Your task to perform on an android device: find snoozed emails in the gmail app Image 0: 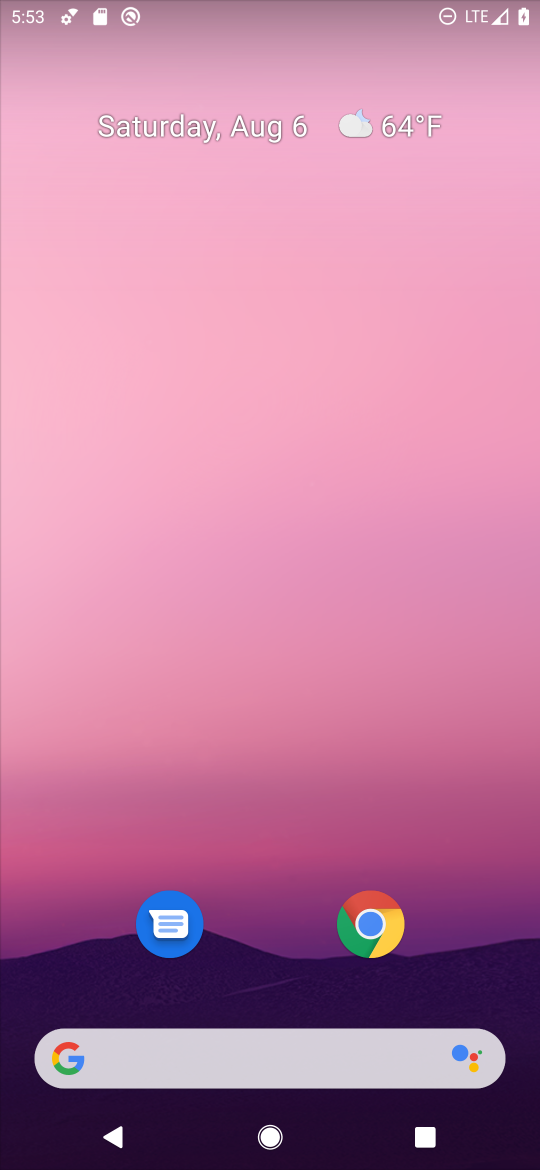
Step 0: drag from (286, 916) to (286, 190)
Your task to perform on an android device: find snoozed emails in the gmail app Image 1: 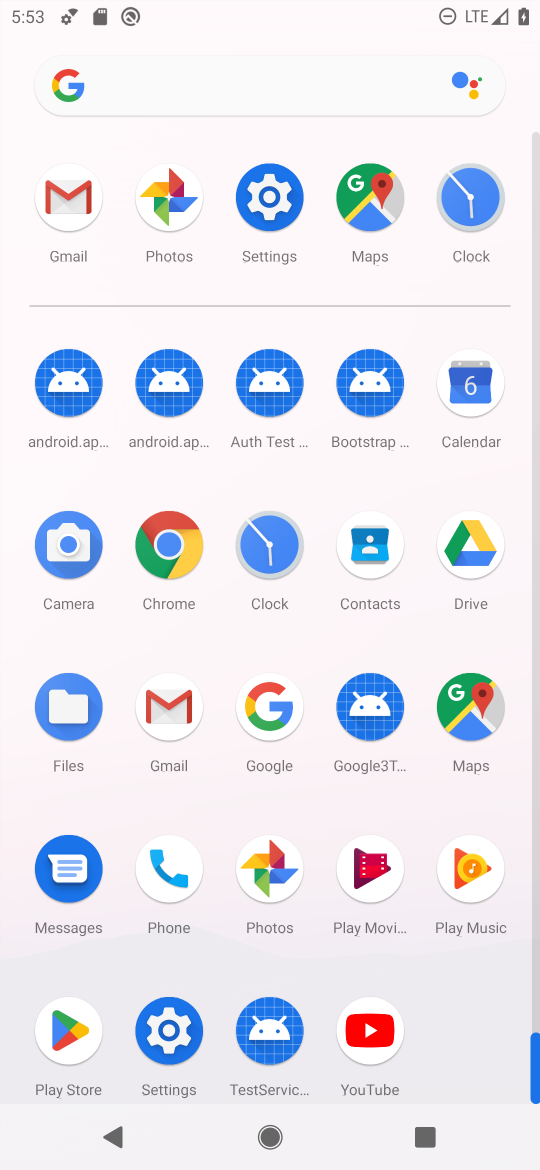
Step 1: click (56, 206)
Your task to perform on an android device: find snoozed emails in the gmail app Image 2: 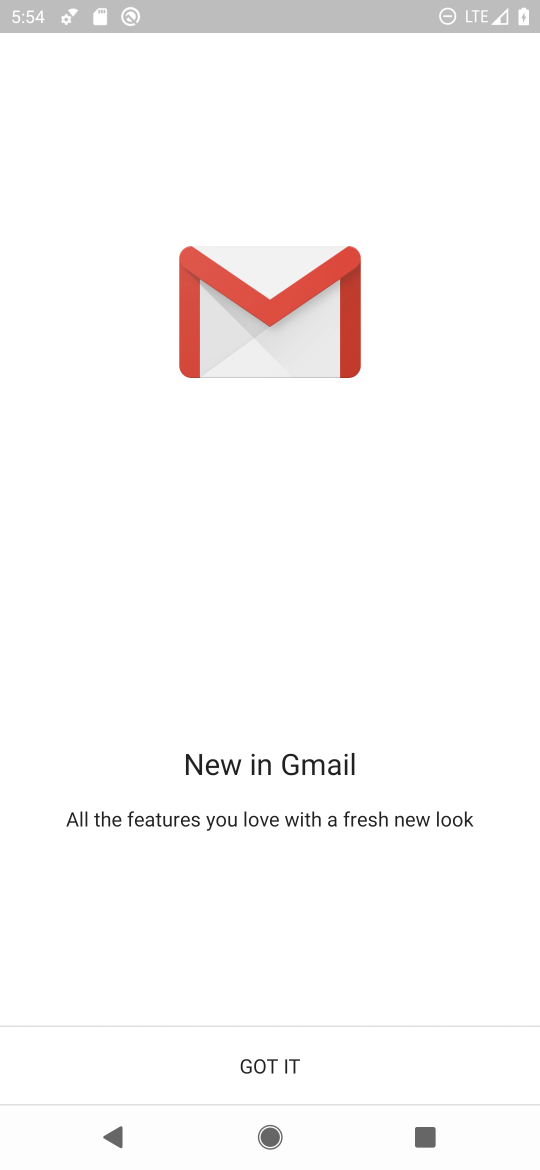
Step 2: click (269, 1047)
Your task to perform on an android device: find snoozed emails in the gmail app Image 3: 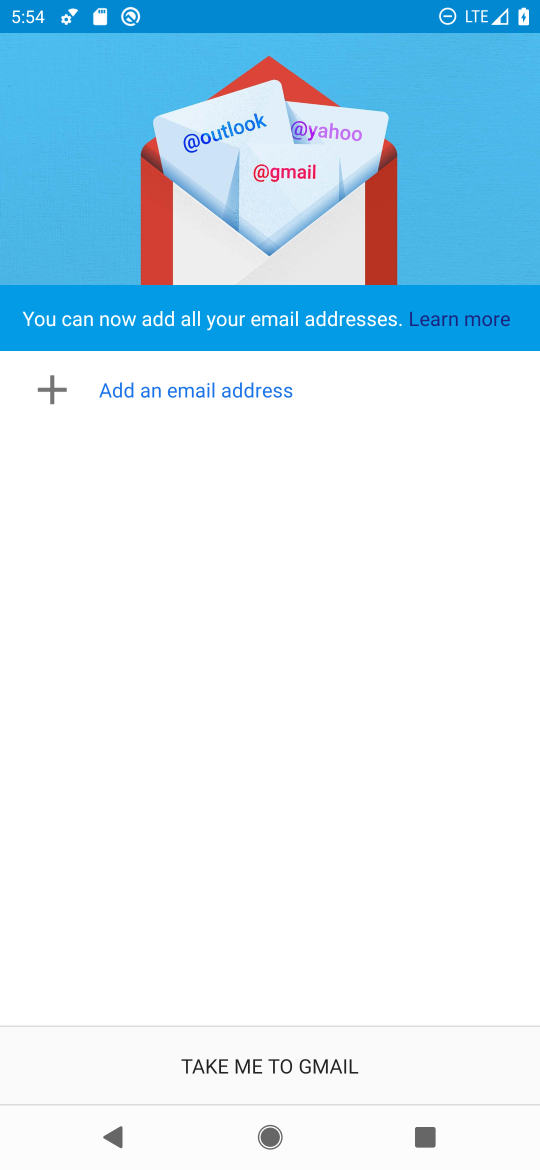
Step 3: task complete